Your task to perform on an android device: manage bookmarks in the chrome app Image 0: 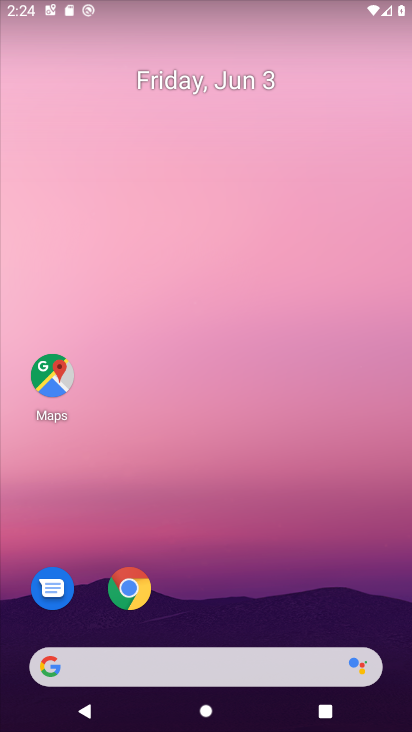
Step 0: drag from (191, 517) to (228, 29)
Your task to perform on an android device: manage bookmarks in the chrome app Image 1: 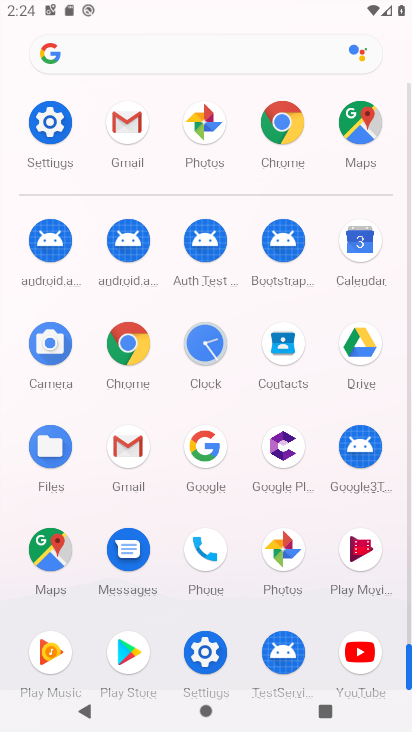
Step 1: click (277, 110)
Your task to perform on an android device: manage bookmarks in the chrome app Image 2: 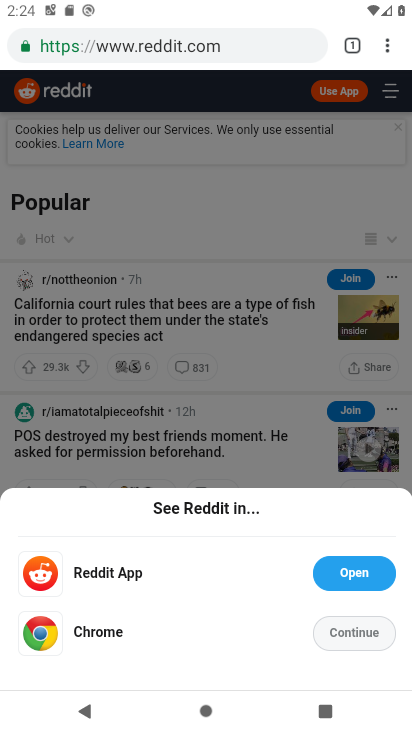
Step 2: click (380, 43)
Your task to perform on an android device: manage bookmarks in the chrome app Image 3: 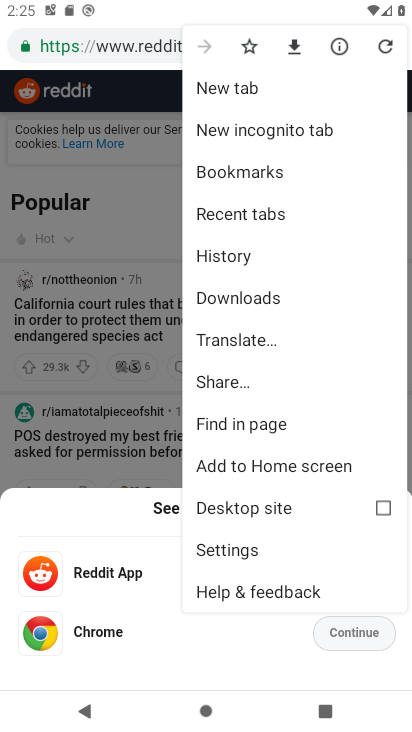
Step 3: click (242, 180)
Your task to perform on an android device: manage bookmarks in the chrome app Image 4: 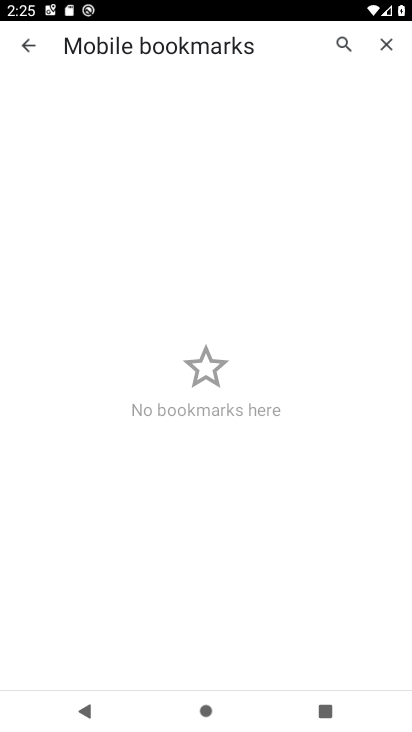
Step 4: task complete